Your task to perform on an android device: Open network settings Image 0: 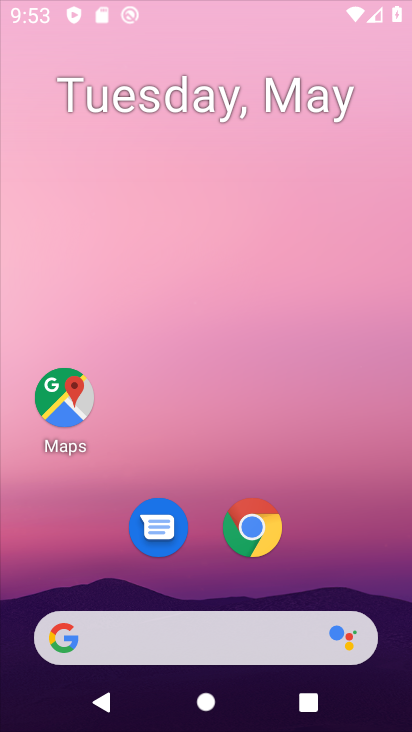
Step 0: press home button
Your task to perform on an android device: Open network settings Image 1: 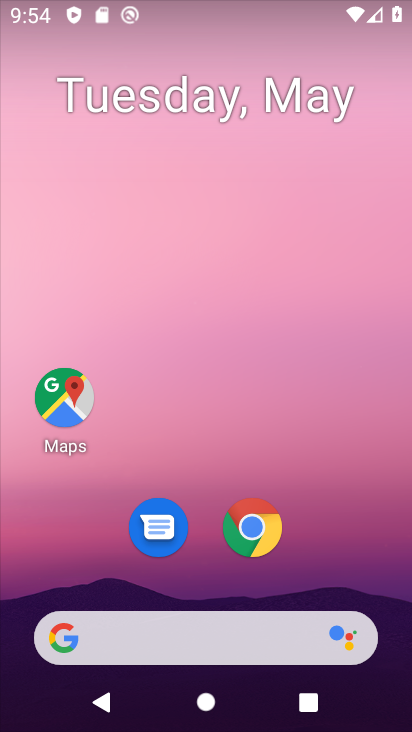
Step 1: drag from (204, 566) to (228, 37)
Your task to perform on an android device: Open network settings Image 2: 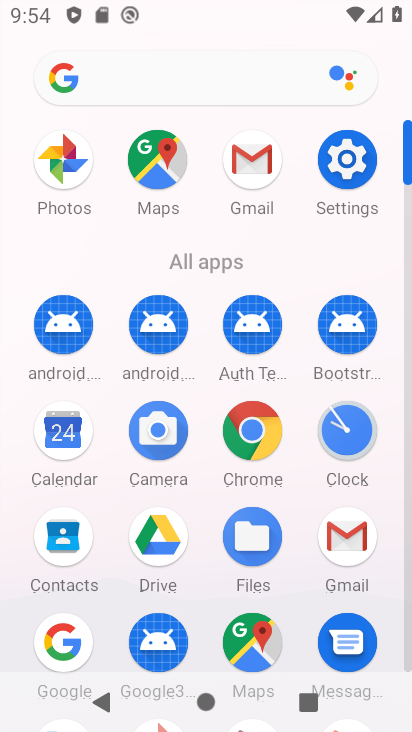
Step 2: click (342, 155)
Your task to perform on an android device: Open network settings Image 3: 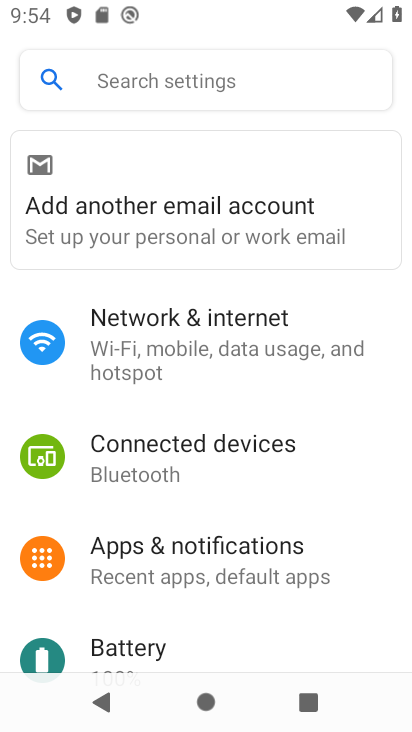
Step 3: click (210, 365)
Your task to perform on an android device: Open network settings Image 4: 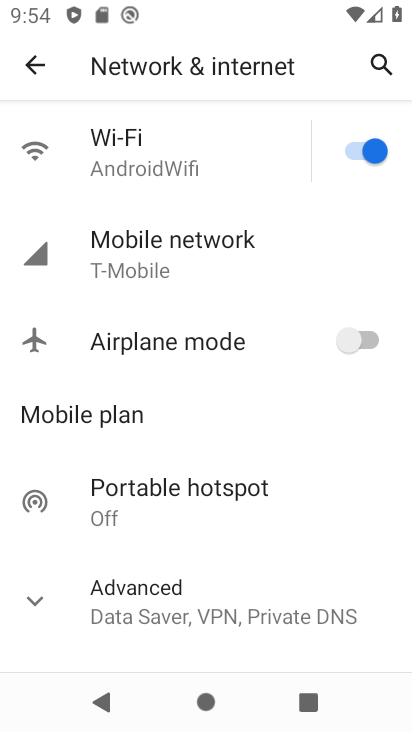
Step 4: click (152, 253)
Your task to perform on an android device: Open network settings Image 5: 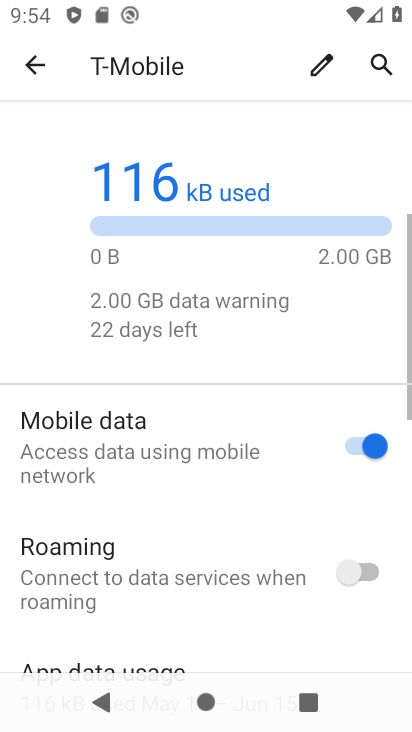
Step 5: task complete